Your task to perform on an android device: Open Wikipedia Image 0: 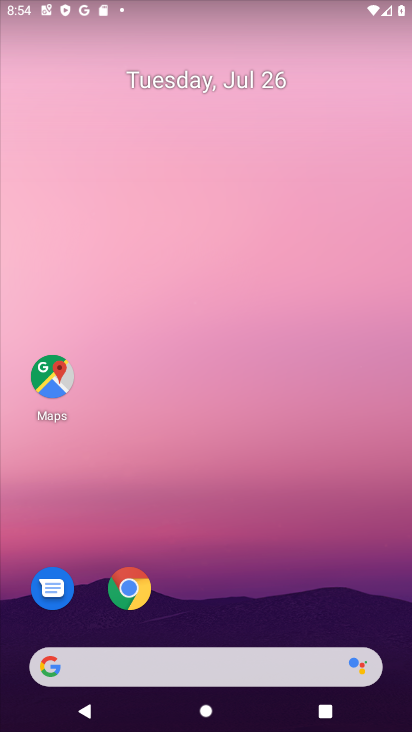
Step 0: click (126, 580)
Your task to perform on an android device: Open Wikipedia Image 1: 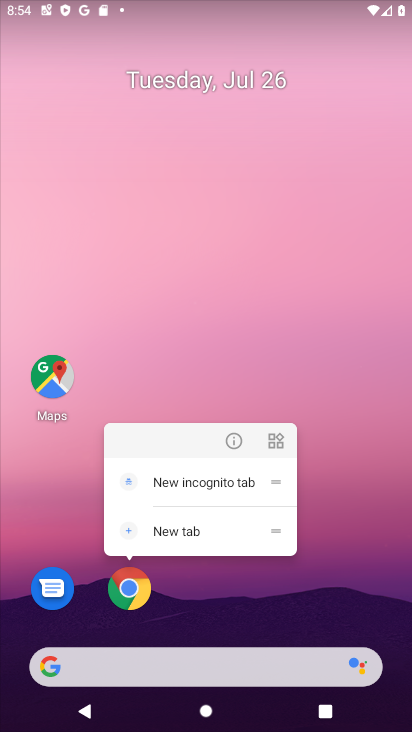
Step 1: click (126, 582)
Your task to perform on an android device: Open Wikipedia Image 2: 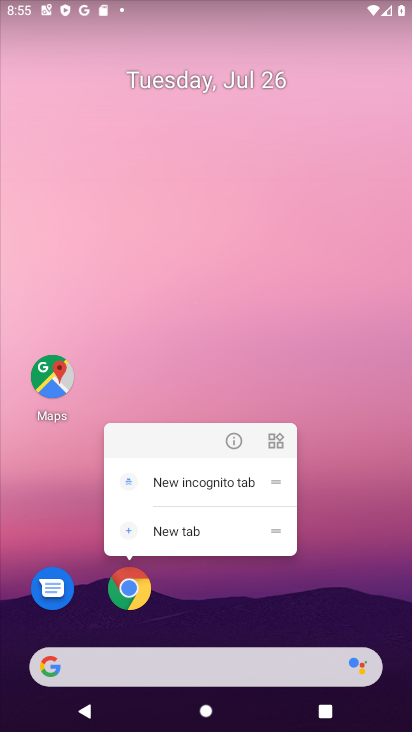
Step 2: click (130, 584)
Your task to perform on an android device: Open Wikipedia Image 3: 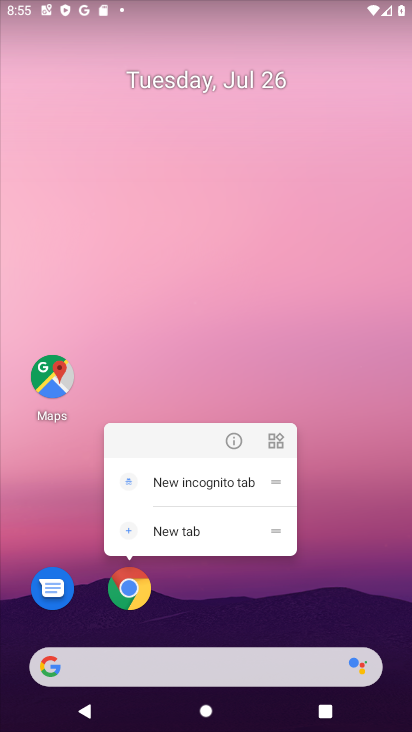
Step 3: click (341, 592)
Your task to perform on an android device: Open Wikipedia Image 4: 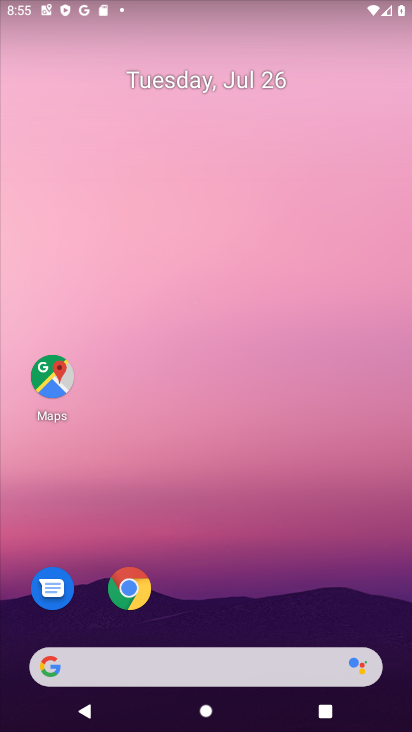
Step 4: click (134, 587)
Your task to perform on an android device: Open Wikipedia Image 5: 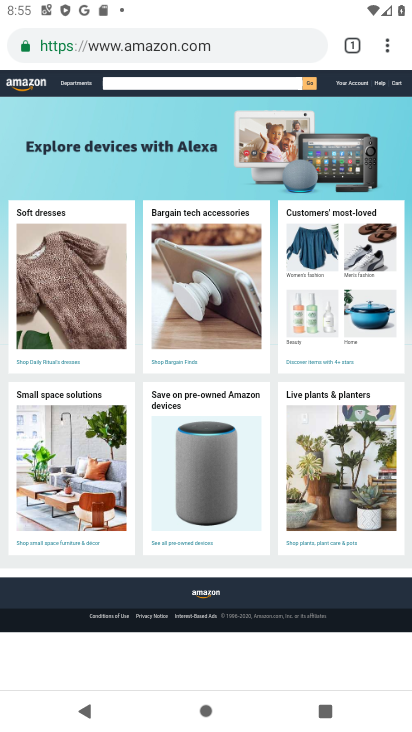
Step 5: click (345, 46)
Your task to perform on an android device: Open Wikipedia Image 6: 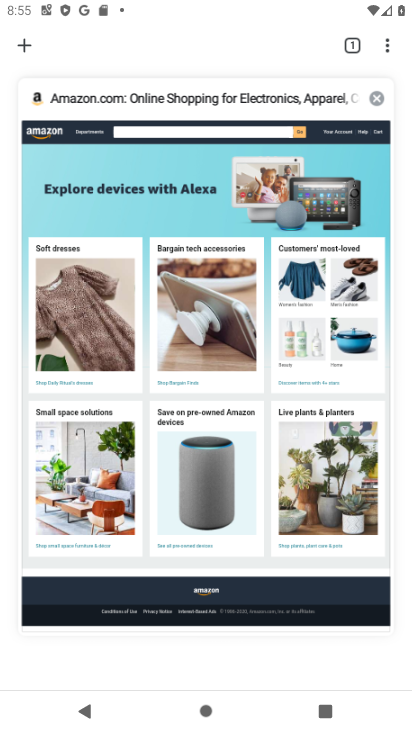
Step 6: click (24, 49)
Your task to perform on an android device: Open Wikipedia Image 7: 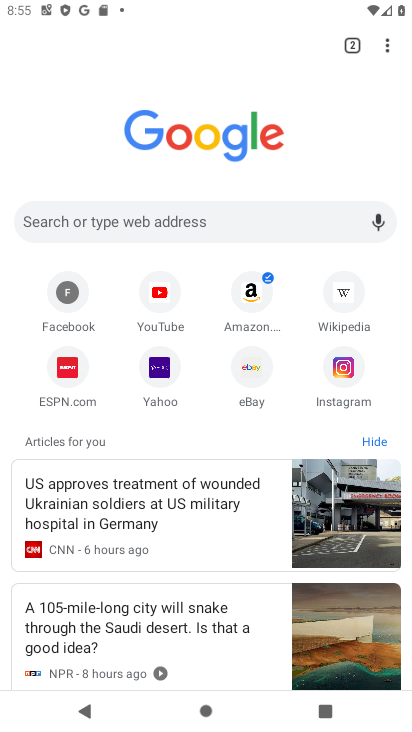
Step 7: click (345, 290)
Your task to perform on an android device: Open Wikipedia Image 8: 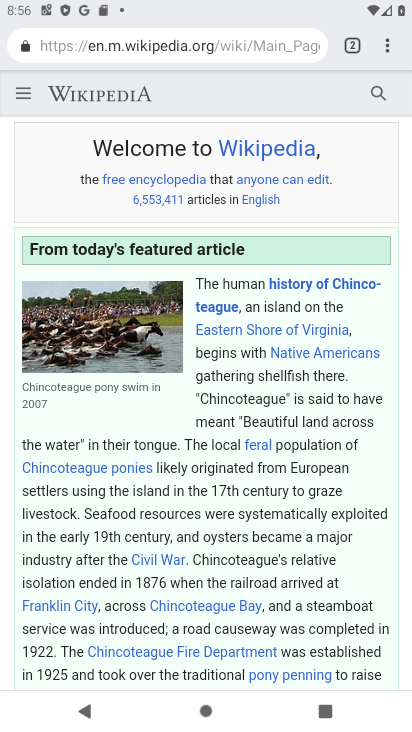
Step 8: task complete